Your task to perform on an android device: Go to location settings Image 0: 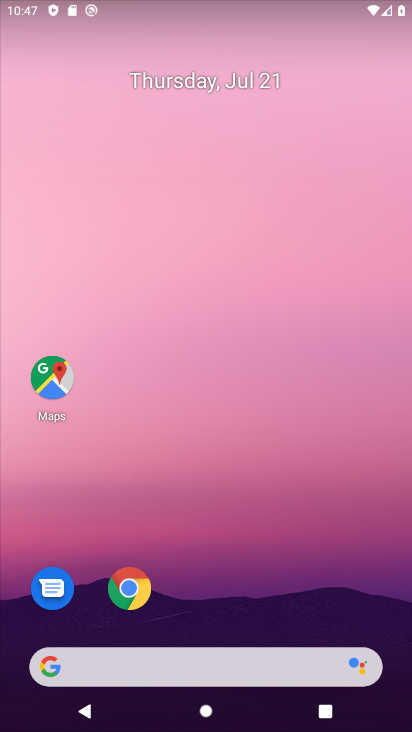
Step 0: drag from (283, 639) to (243, 54)
Your task to perform on an android device: Go to location settings Image 1: 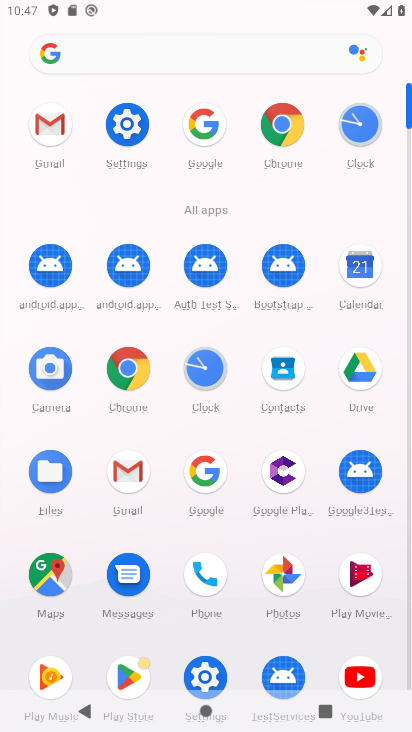
Step 1: click (138, 140)
Your task to perform on an android device: Go to location settings Image 2: 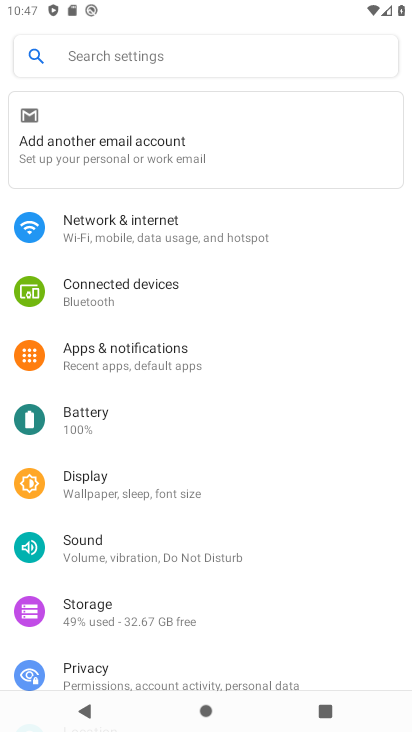
Step 2: drag from (212, 643) to (200, 174)
Your task to perform on an android device: Go to location settings Image 3: 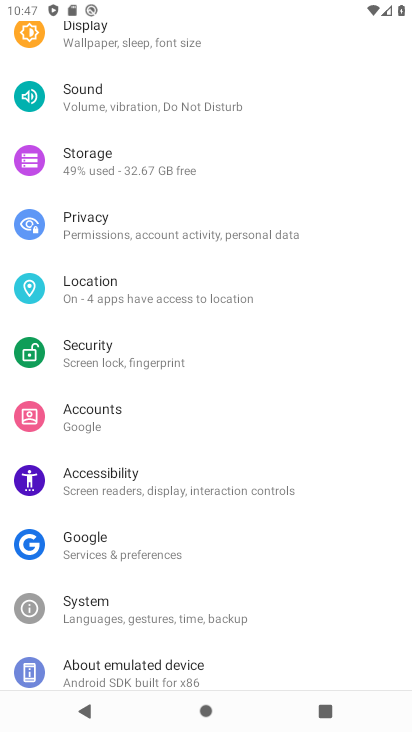
Step 3: click (127, 294)
Your task to perform on an android device: Go to location settings Image 4: 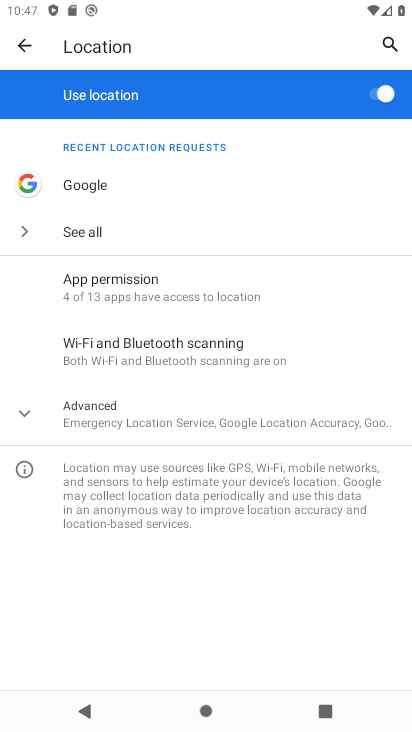
Step 4: task complete